Your task to perform on an android device: change the clock style Image 0: 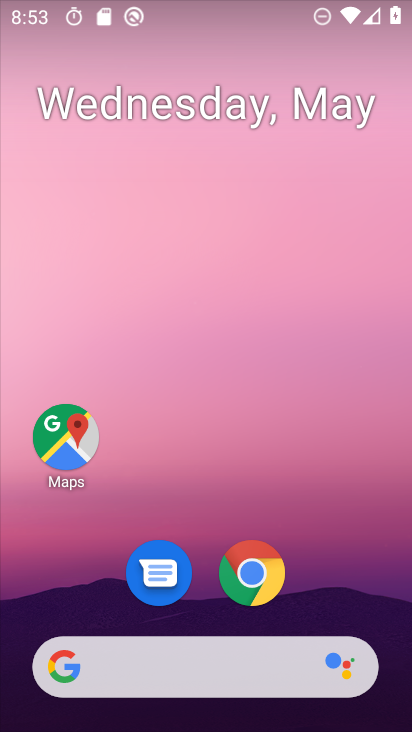
Step 0: drag from (389, 684) to (334, 188)
Your task to perform on an android device: change the clock style Image 1: 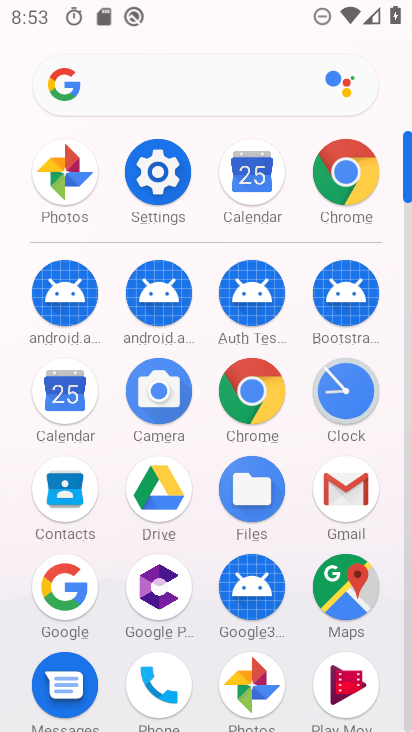
Step 1: click (356, 392)
Your task to perform on an android device: change the clock style Image 2: 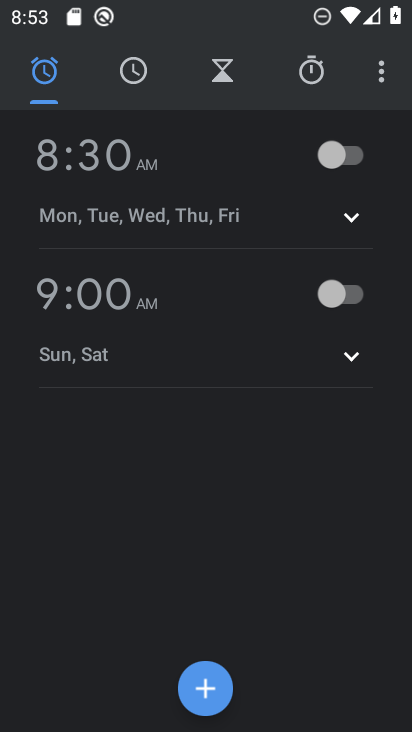
Step 2: click (379, 66)
Your task to perform on an android device: change the clock style Image 3: 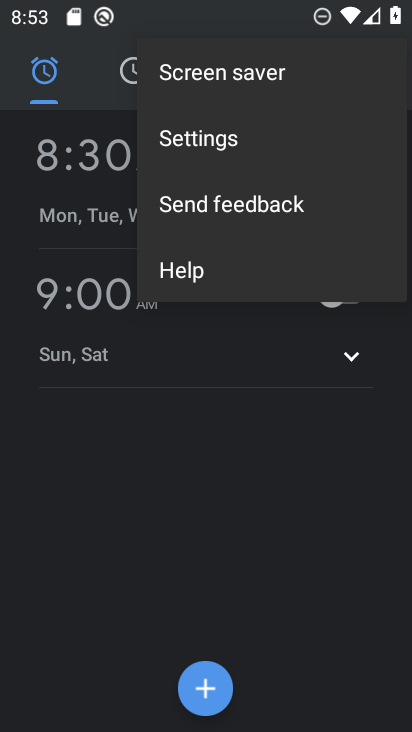
Step 3: click (203, 139)
Your task to perform on an android device: change the clock style Image 4: 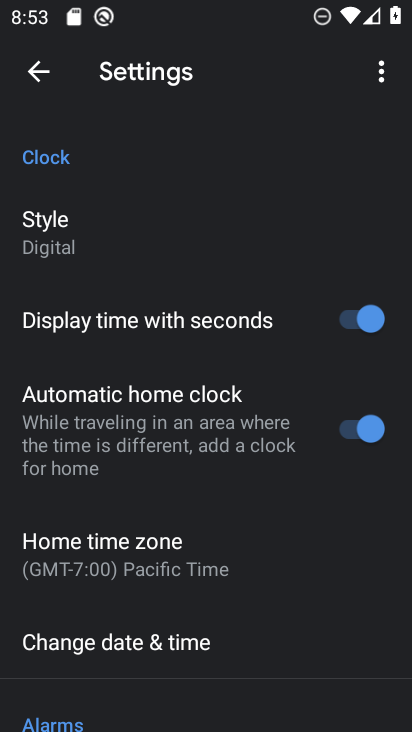
Step 4: click (63, 221)
Your task to perform on an android device: change the clock style Image 5: 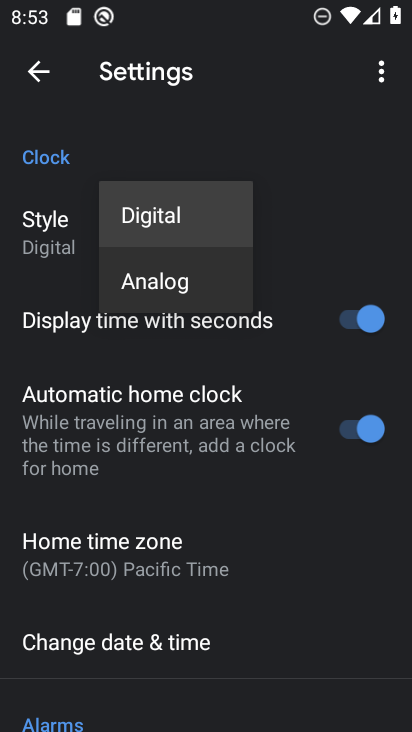
Step 5: click (148, 278)
Your task to perform on an android device: change the clock style Image 6: 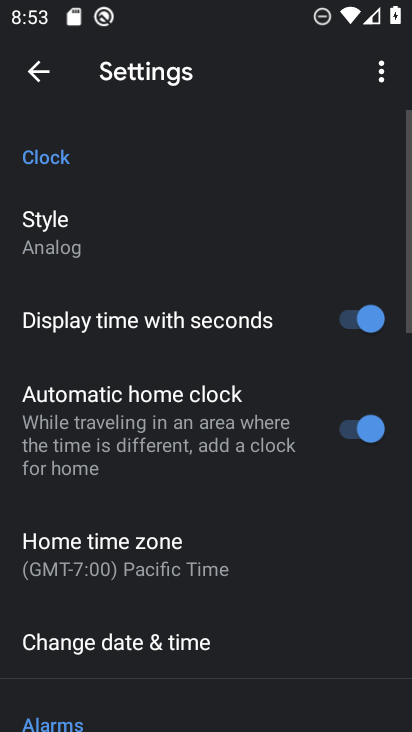
Step 6: task complete